Your task to perform on an android device: clear all cookies in the chrome app Image 0: 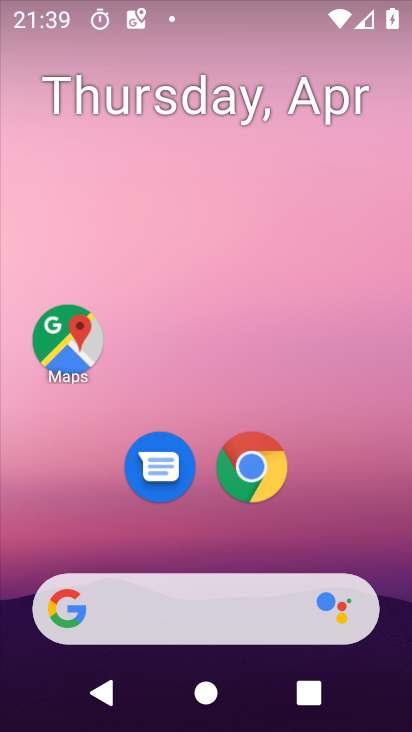
Step 0: drag from (210, 541) to (365, 15)
Your task to perform on an android device: clear all cookies in the chrome app Image 1: 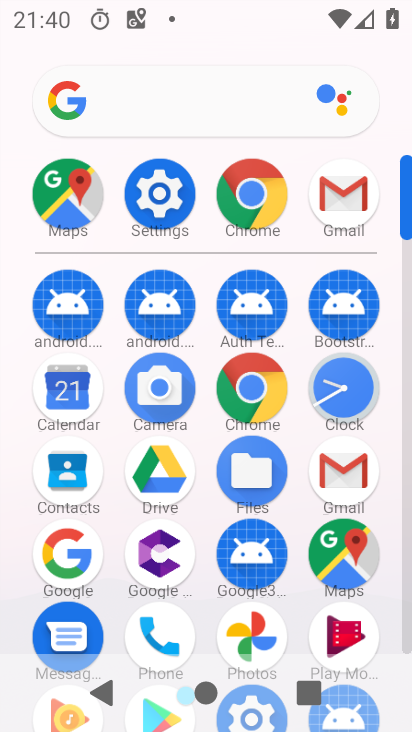
Step 1: click (246, 204)
Your task to perform on an android device: clear all cookies in the chrome app Image 2: 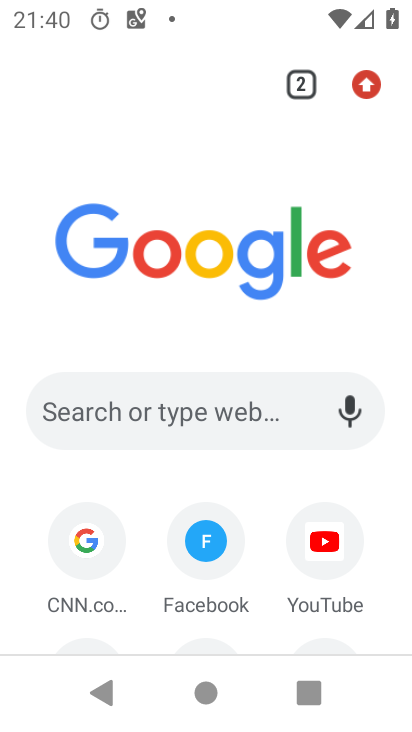
Step 2: drag from (372, 87) to (138, 531)
Your task to perform on an android device: clear all cookies in the chrome app Image 3: 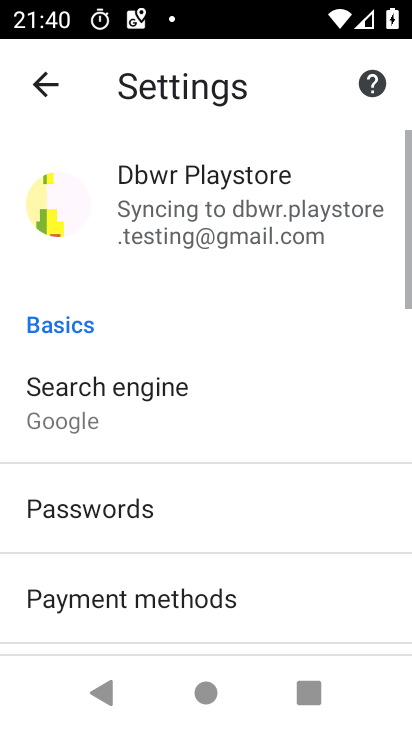
Step 3: drag from (175, 556) to (194, 33)
Your task to perform on an android device: clear all cookies in the chrome app Image 4: 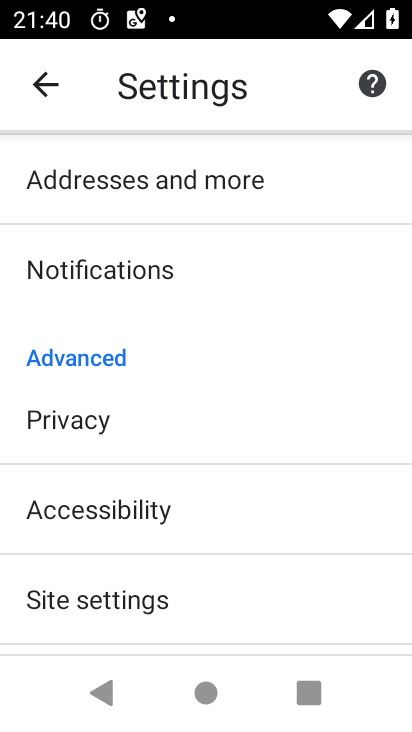
Step 4: click (77, 414)
Your task to perform on an android device: clear all cookies in the chrome app Image 5: 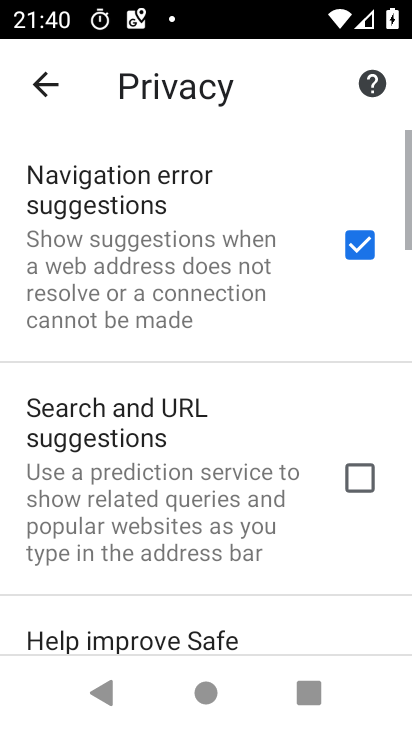
Step 5: drag from (109, 488) to (220, 19)
Your task to perform on an android device: clear all cookies in the chrome app Image 6: 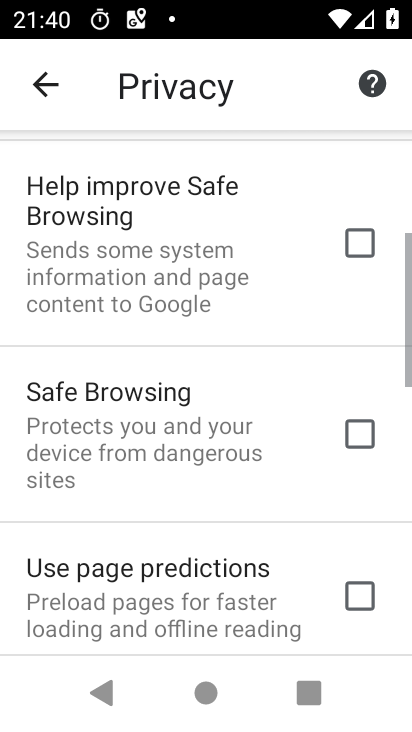
Step 6: drag from (201, 524) to (214, 93)
Your task to perform on an android device: clear all cookies in the chrome app Image 7: 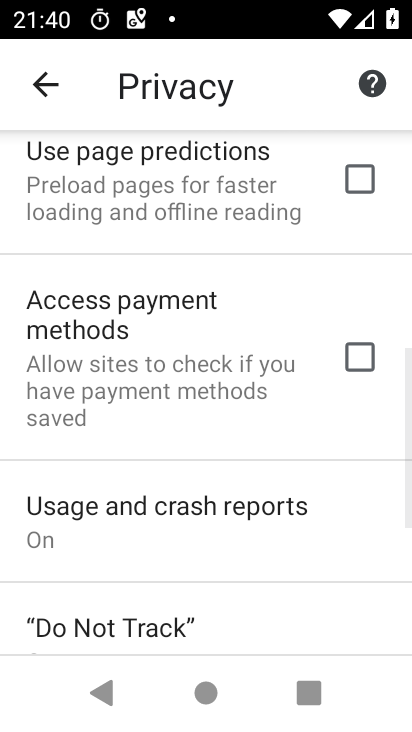
Step 7: drag from (254, 521) to (235, 52)
Your task to perform on an android device: clear all cookies in the chrome app Image 8: 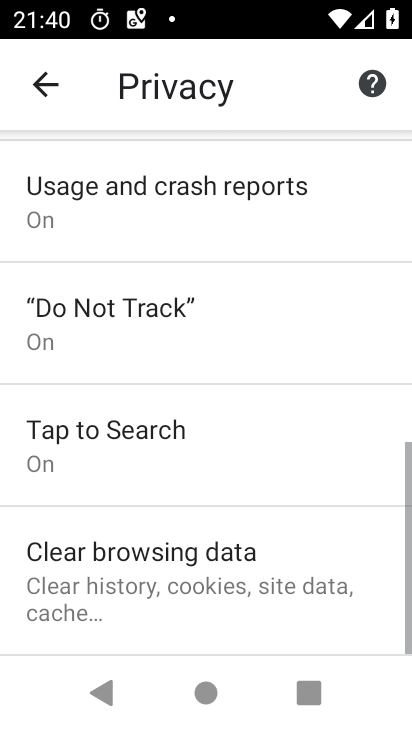
Step 8: click (202, 573)
Your task to perform on an android device: clear all cookies in the chrome app Image 9: 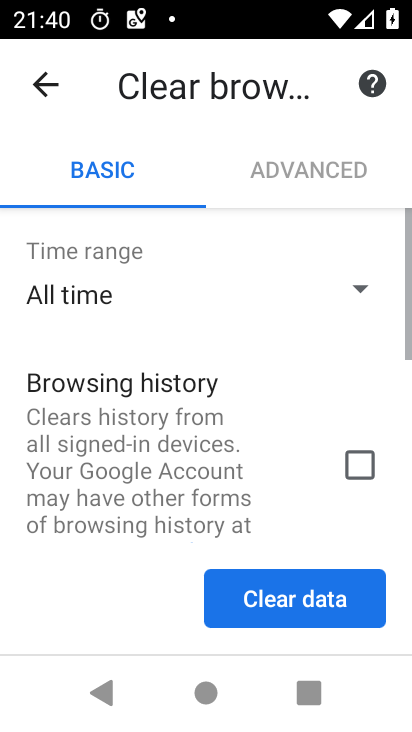
Step 9: drag from (283, 460) to (267, 237)
Your task to perform on an android device: clear all cookies in the chrome app Image 10: 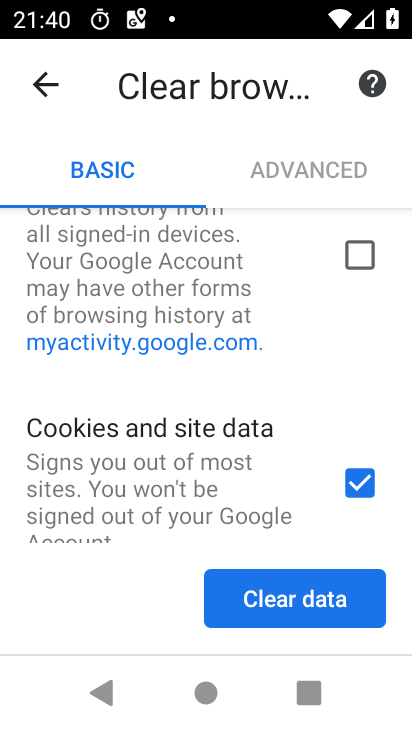
Step 10: click (309, 585)
Your task to perform on an android device: clear all cookies in the chrome app Image 11: 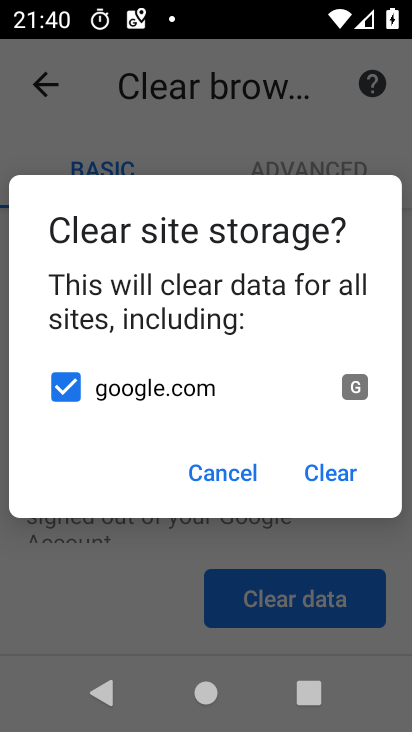
Step 11: click (336, 479)
Your task to perform on an android device: clear all cookies in the chrome app Image 12: 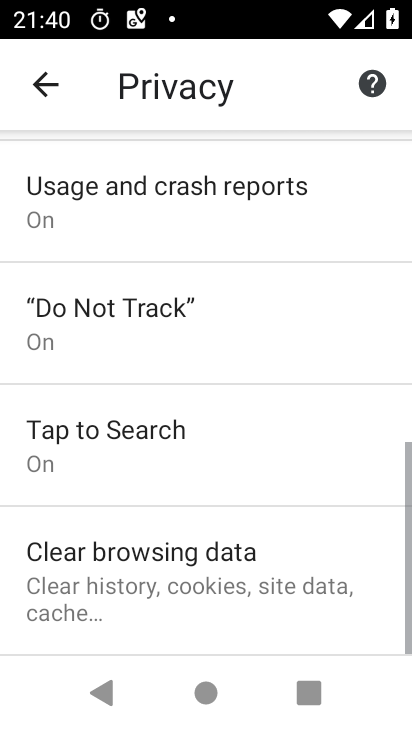
Step 12: task complete